Your task to perform on an android device: turn off location history Image 0: 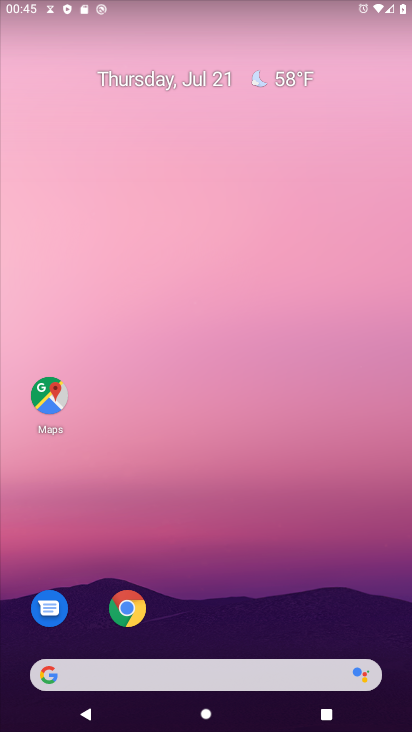
Step 0: press home button
Your task to perform on an android device: turn off location history Image 1: 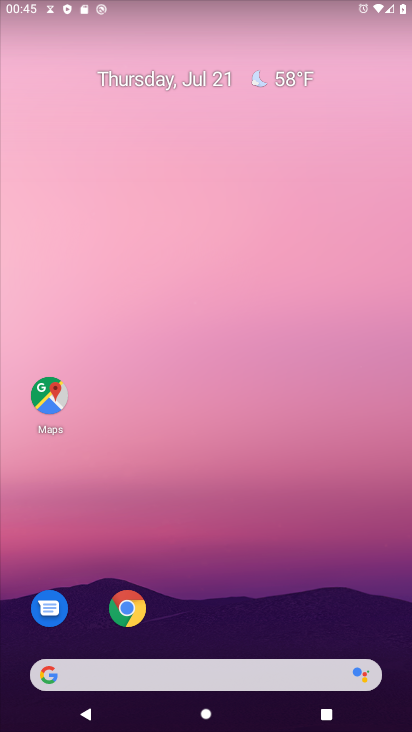
Step 1: drag from (199, 639) to (190, 63)
Your task to perform on an android device: turn off location history Image 2: 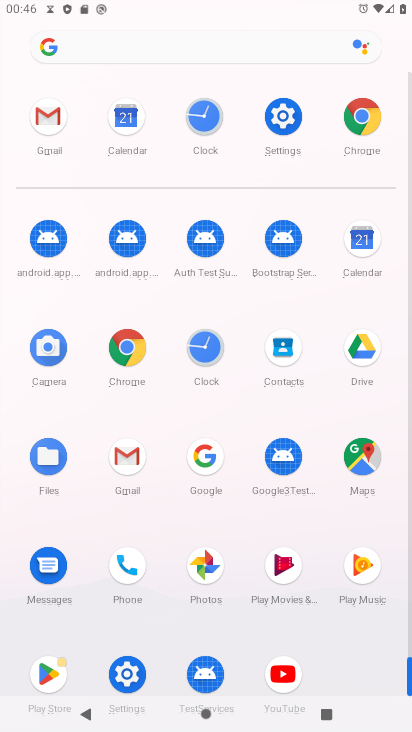
Step 2: click (280, 107)
Your task to perform on an android device: turn off location history Image 3: 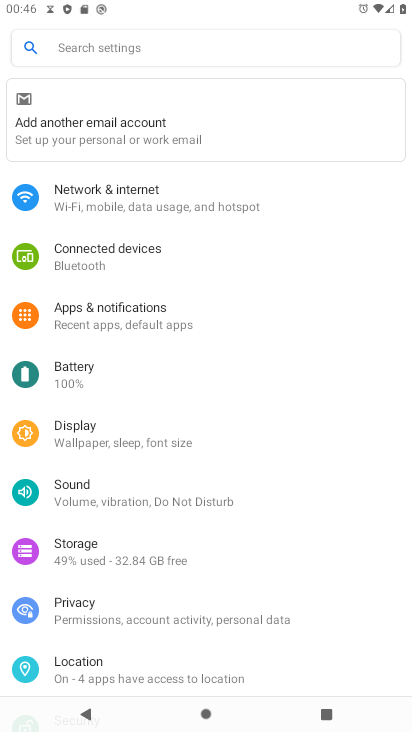
Step 3: click (109, 666)
Your task to perform on an android device: turn off location history Image 4: 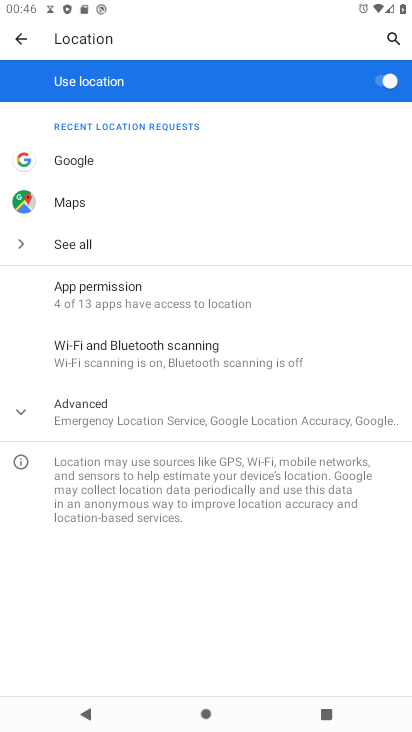
Step 4: click (22, 403)
Your task to perform on an android device: turn off location history Image 5: 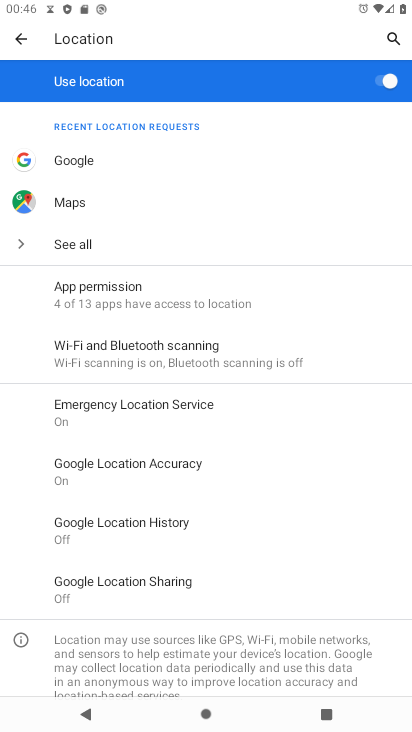
Step 5: click (120, 524)
Your task to perform on an android device: turn off location history Image 6: 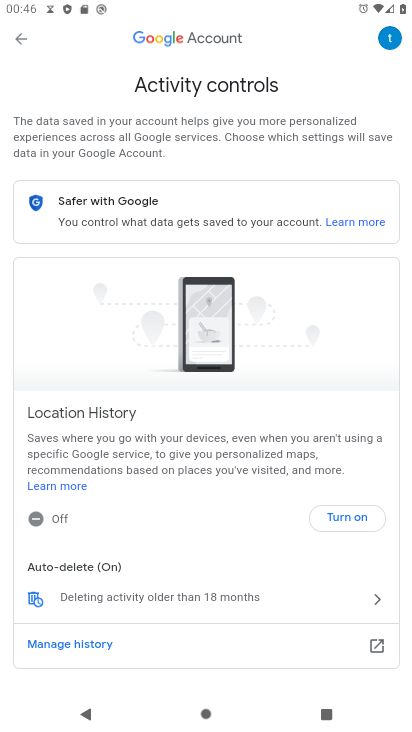
Step 6: task complete